Your task to perform on an android device: add a label to a message in the gmail app Image 0: 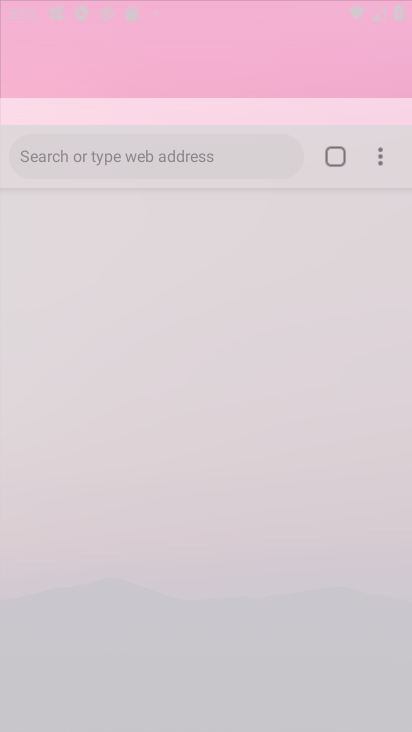
Step 0: drag from (238, 148) to (171, 173)
Your task to perform on an android device: add a label to a message in the gmail app Image 1: 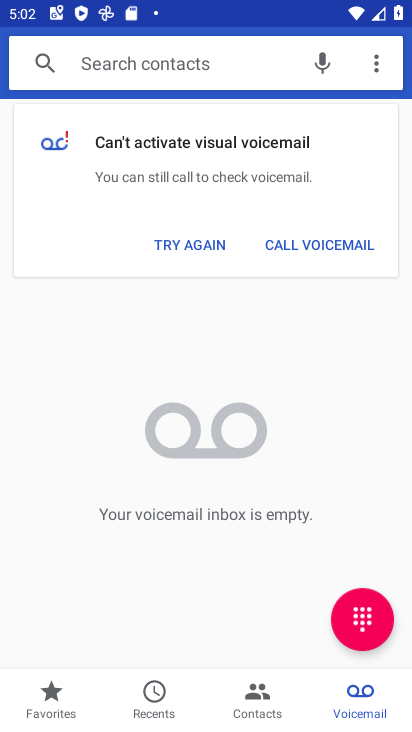
Step 1: press home button
Your task to perform on an android device: add a label to a message in the gmail app Image 2: 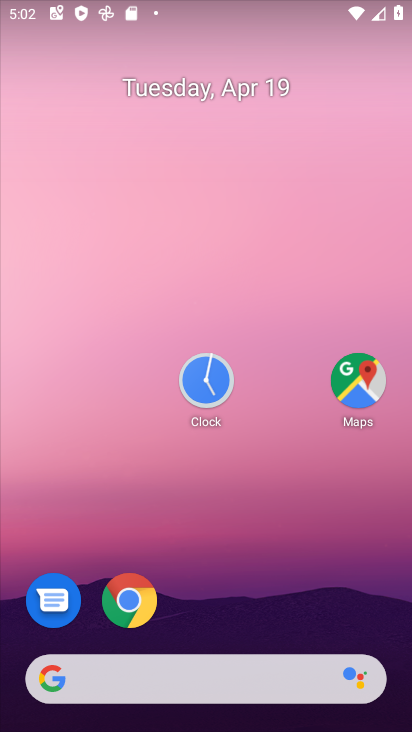
Step 2: drag from (202, 487) to (102, 188)
Your task to perform on an android device: add a label to a message in the gmail app Image 3: 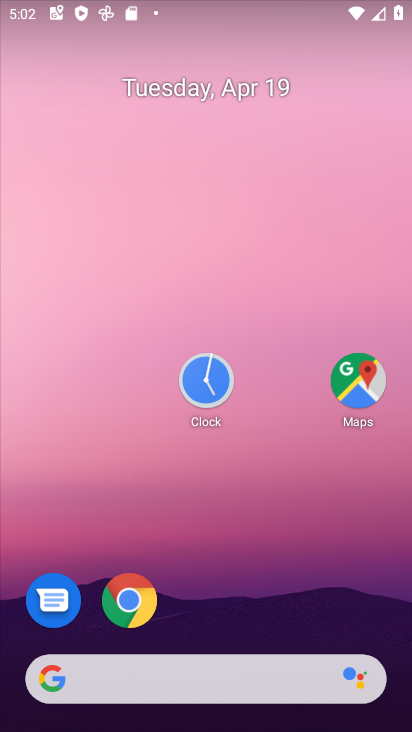
Step 3: drag from (131, 186) to (83, 132)
Your task to perform on an android device: add a label to a message in the gmail app Image 4: 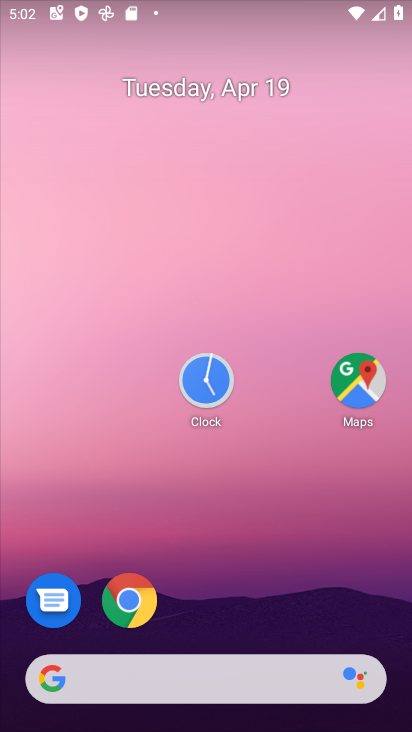
Step 4: drag from (254, 550) to (103, 129)
Your task to perform on an android device: add a label to a message in the gmail app Image 5: 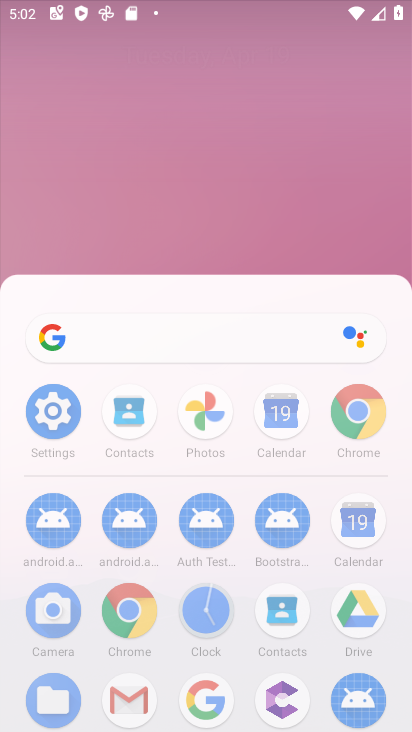
Step 5: drag from (192, 344) to (168, 242)
Your task to perform on an android device: add a label to a message in the gmail app Image 6: 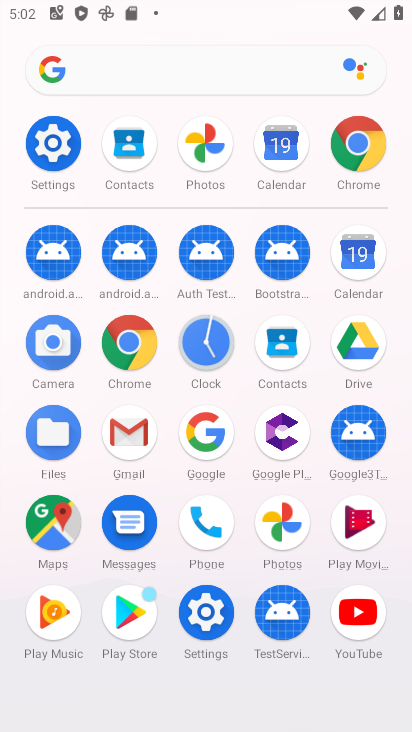
Step 6: drag from (302, 569) to (120, 179)
Your task to perform on an android device: add a label to a message in the gmail app Image 7: 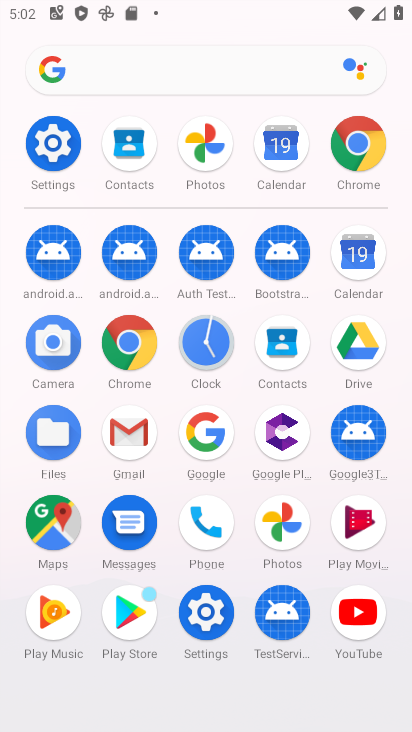
Step 7: click (125, 434)
Your task to perform on an android device: add a label to a message in the gmail app Image 8: 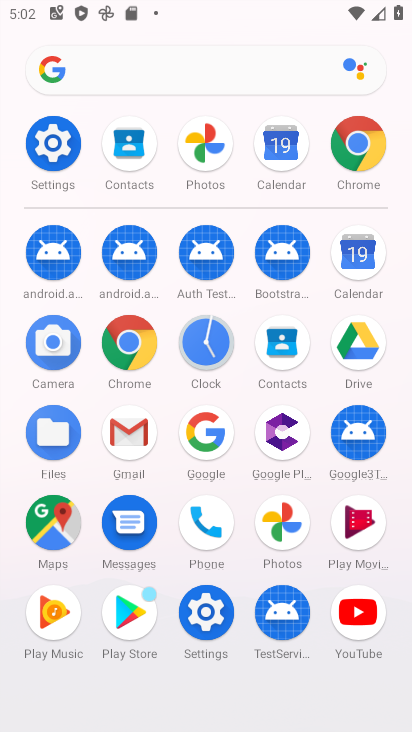
Step 8: click (125, 434)
Your task to perform on an android device: add a label to a message in the gmail app Image 9: 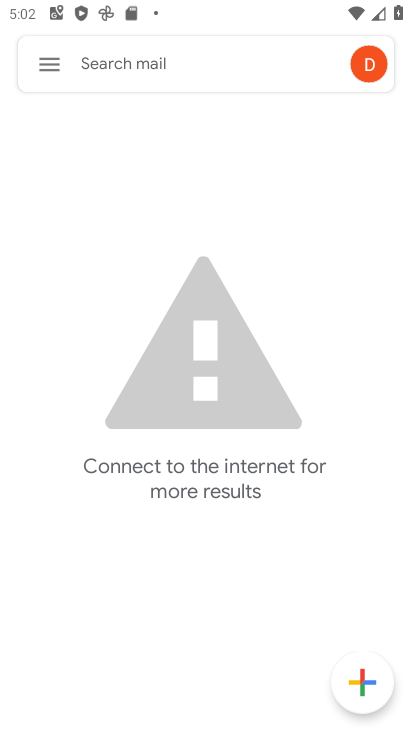
Step 9: click (45, 62)
Your task to perform on an android device: add a label to a message in the gmail app Image 10: 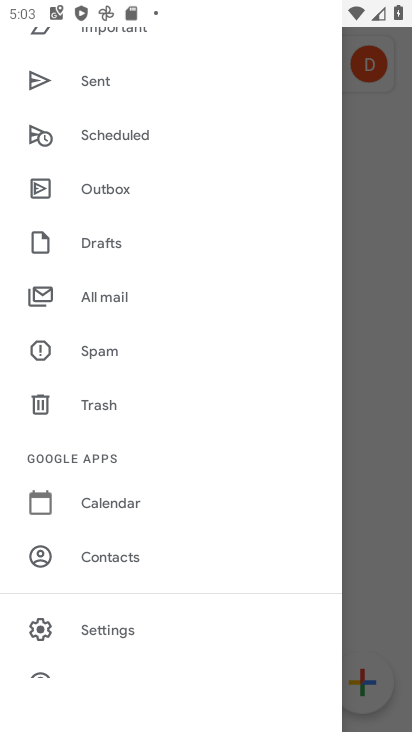
Step 10: click (107, 286)
Your task to perform on an android device: add a label to a message in the gmail app Image 11: 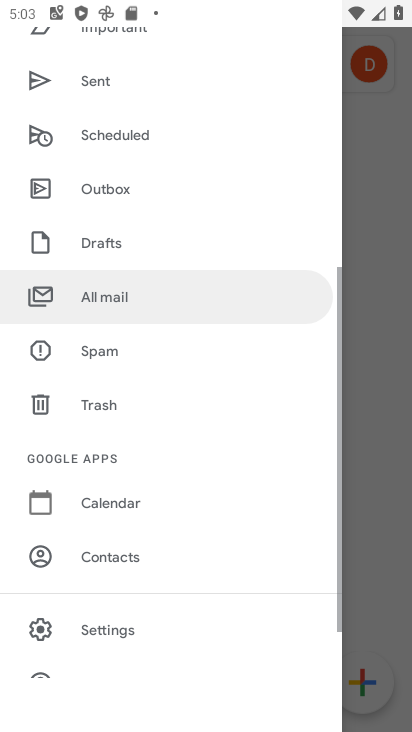
Step 11: click (107, 287)
Your task to perform on an android device: add a label to a message in the gmail app Image 12: 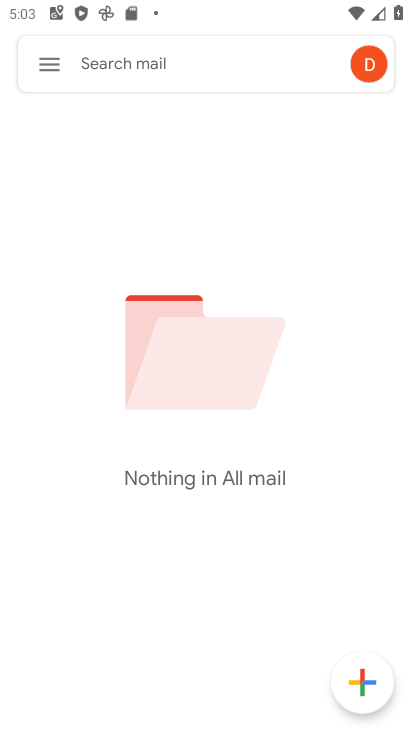
Step 12: task complete